Your task to perform on an android device: Open the calendar and show me this week's events? Image 0: 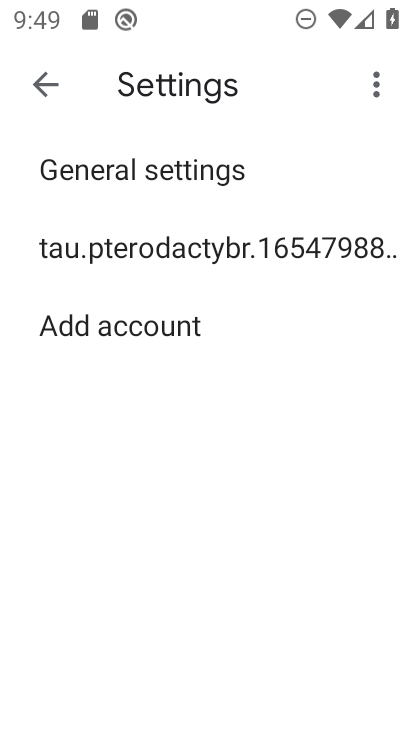
Step 0: press home button
Your task to perform on an android device: Open the calendar and show me this week's events? Image 1: 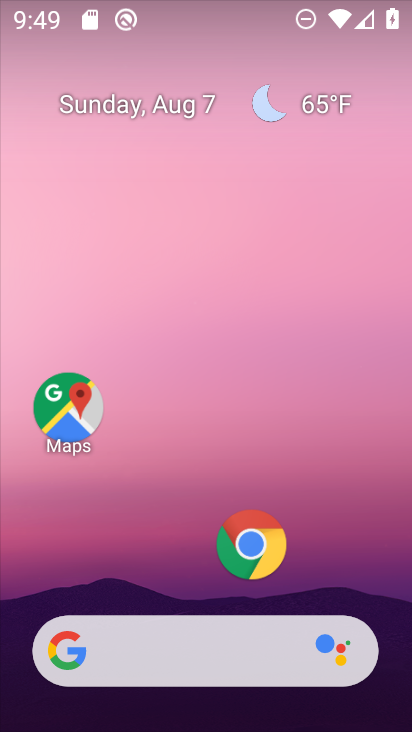
Step 1: drag from (196, 612) to (318, 24)
Your task to perform on an android device: Open the calendar and show me this week's events? Image 2: 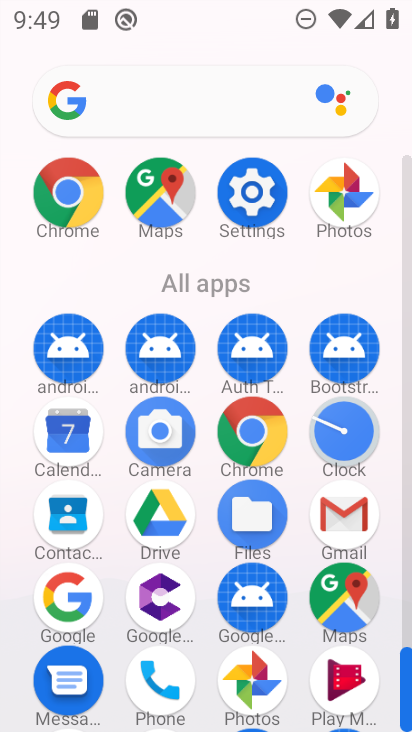
Step 2: click (72, 442)
Your task to perform on an android device: Open the calendar and show me this week's events? Image 3: 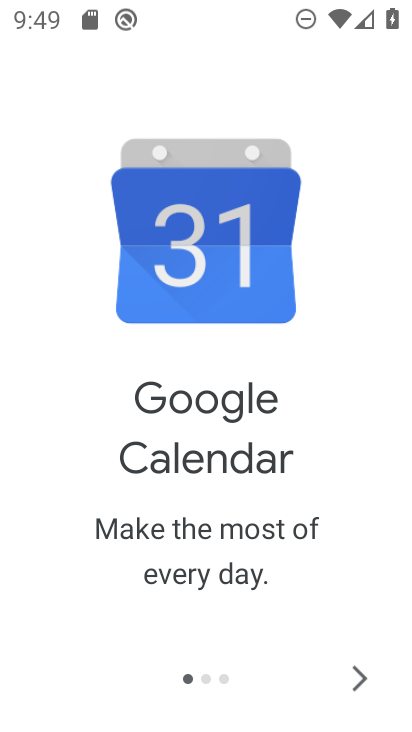
Step 3: click (361, 673)
Your task to perform on an android device: Open the calendar and show me this week's events? Image 4: 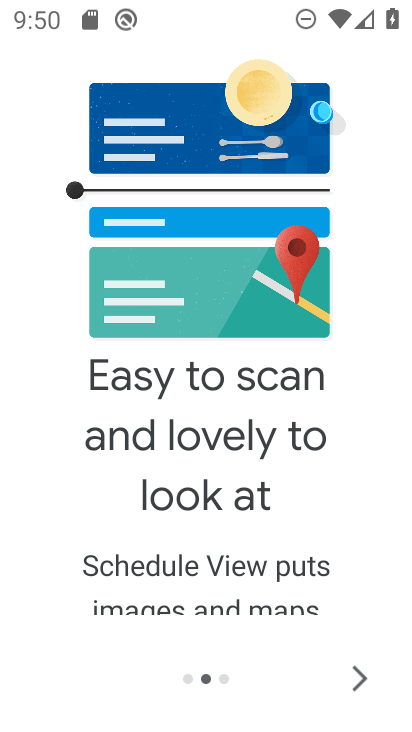
Step 4: click (346, 678)
Your task to perform on an android device: Open the calendar and show me this week's events? Image 5: 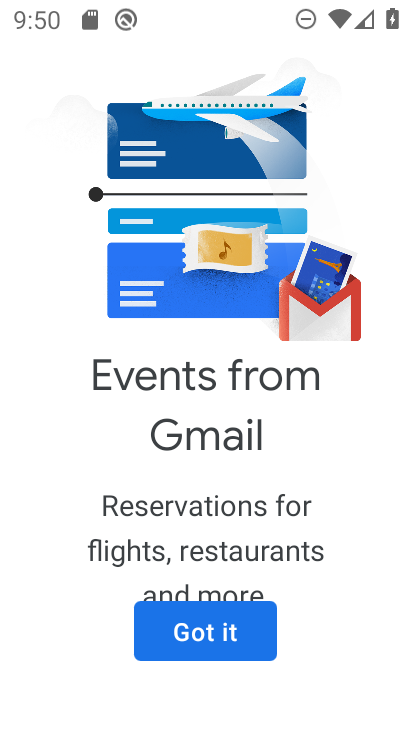
Step 5: click (348, 672)
Your task to perform on an android device: Open the calendar and show me this week's events? Image 6: 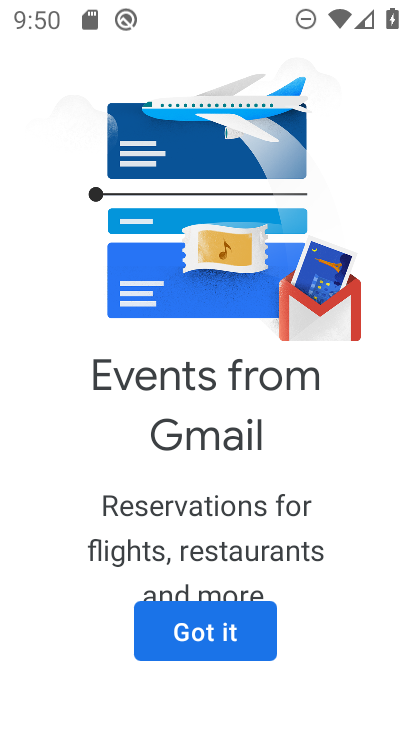
Step 6: click (227, 611)
Your task to perform on an android device: Open the calendar and show me this week's events? Image 7: 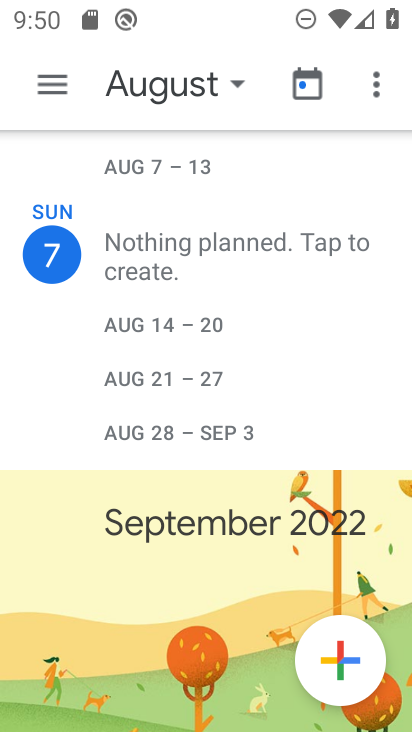
Step 7: click (49, 91)
Your task to perform on an android device: Open the calendar and show me this week's events? Image 8: 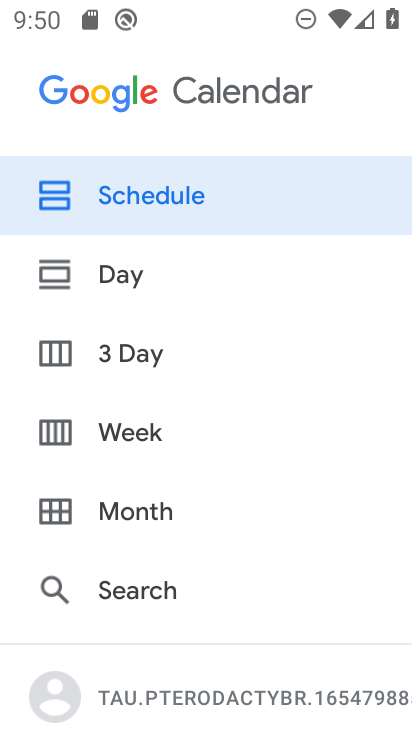
Step 8: click (182, 437)
Your task to perform on an android device: Open the calendar and show me this week's events? Image 9: 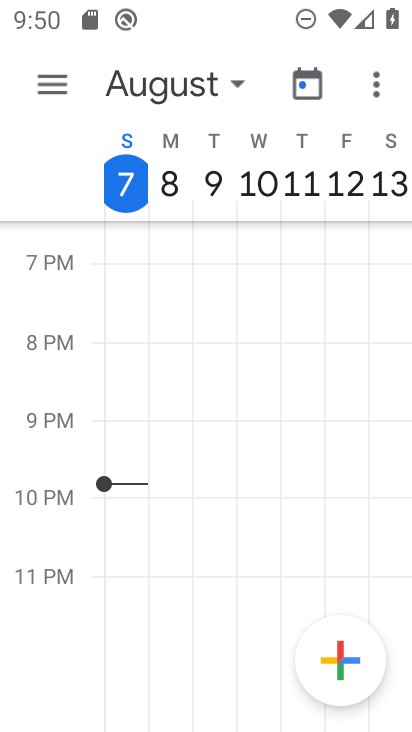
Step 9: task complete